Your task to perform on an android device: check storage Image 0: 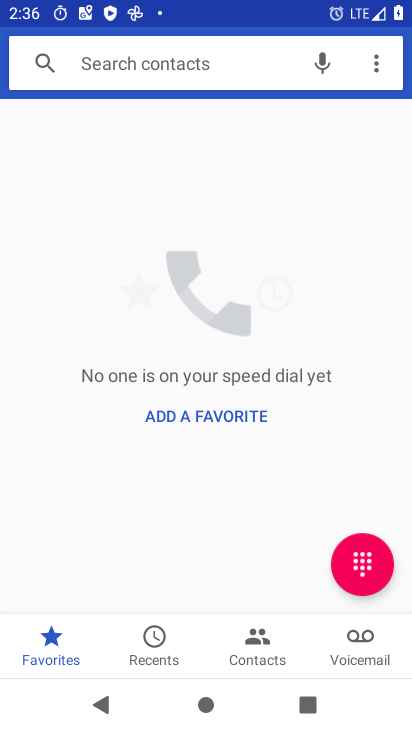
Step 0: press home button
Your task to perform on an android device: check storage Image 1: 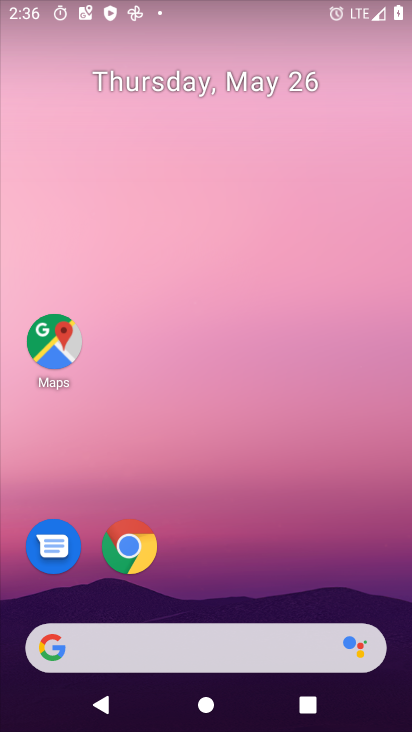
Step 1: drag from (265, 482) to (304, 86)
Your task to perform on an android device: check storage Image 2: 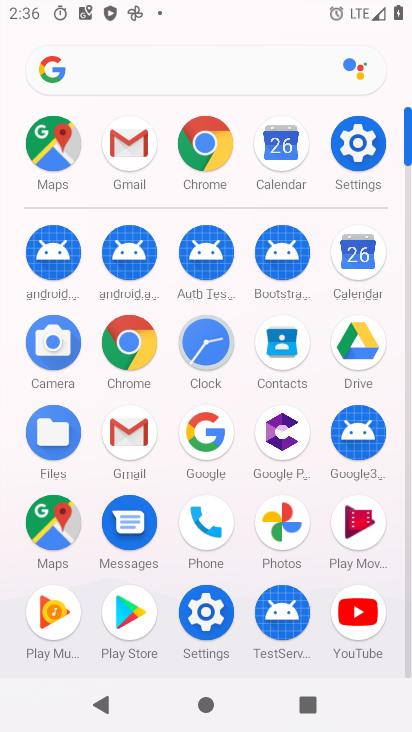
Step 2: click (358, 140)
Your task to perform on an android device: check storage Image 3: 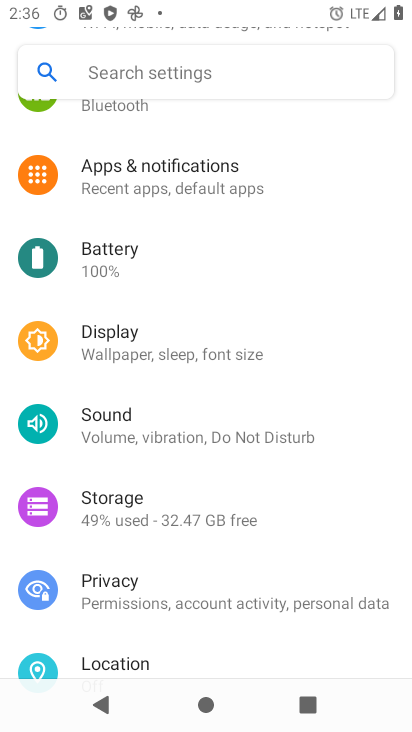
Step 3: click (230, 509)
Your task to perform on an android device: check storage Image 4: 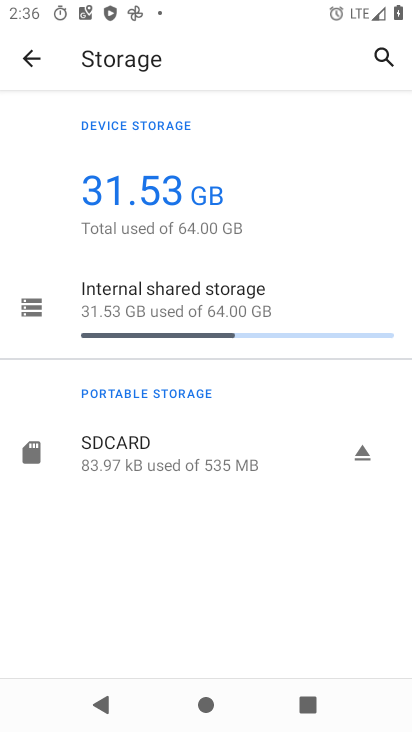
Step 4: task complete